Your task to perform on an android device: turn on showing notifications on the lock screen Image 0: 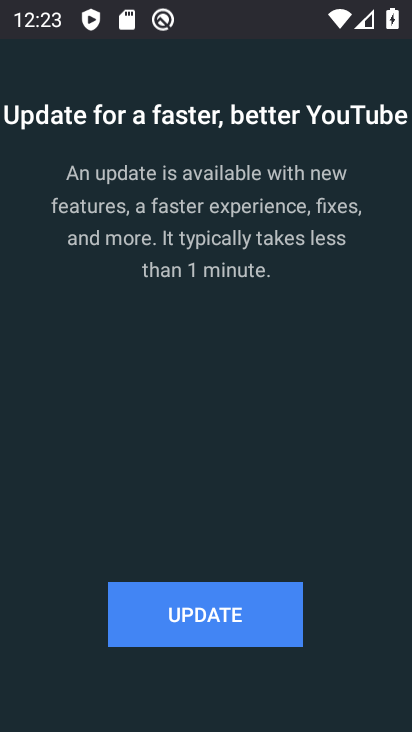
Step 0: press home button
Your task to perform on an android device: turn on showing notifications on the lock screen Image 1: 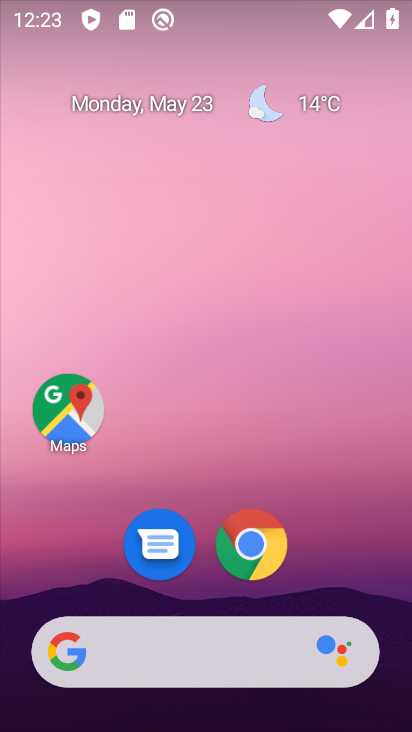
Step 1: drag from (370, 474) to (335, 126)
Your task to perform on an android device: turn on showing notifications on the lock screen Image 2: 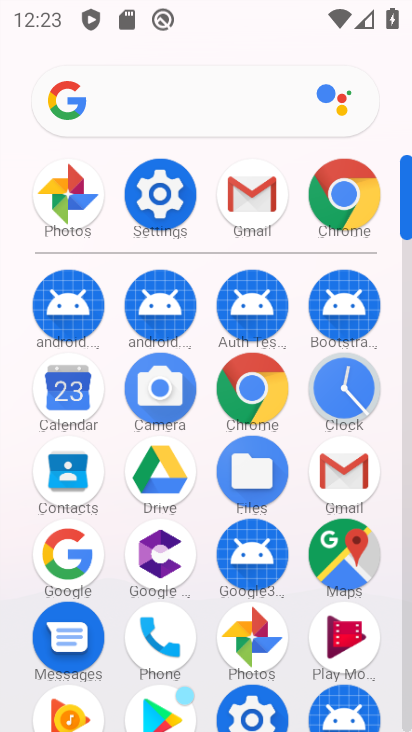
Step 2: click (146, 192)
Your task to perform on an android device: turn on showing notifications on the lock screen Image 3: 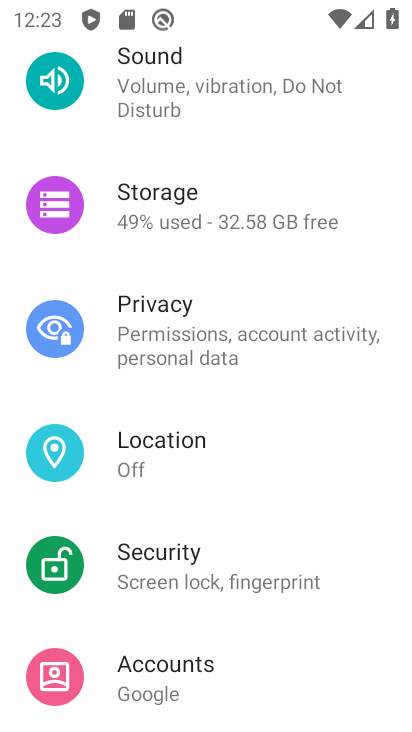
Step 3: drag from (223, 283) to (251, 687)
Your task to perform on an android device: turn on showing notifications on the lock screen Image 4: 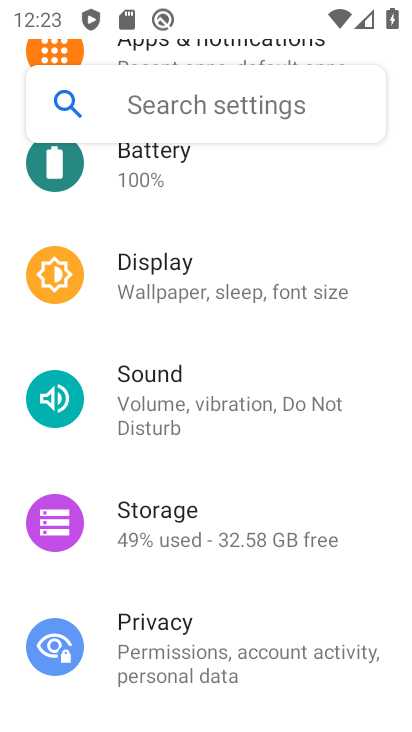
Step 4: drag from (203, 250) to (238, 716)
Your task to perform on an android device: turn on showing notifications on the lock screen Image 5: 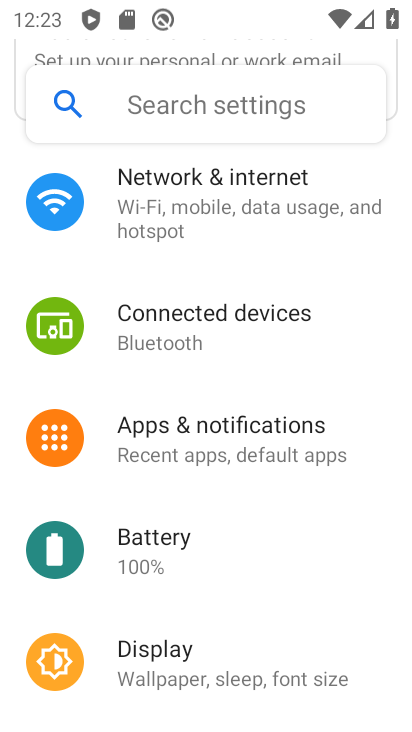
Step 5: click (209, 433)
Your task to perform on an android device: turn on showing notifications on the lock screen Image 6: 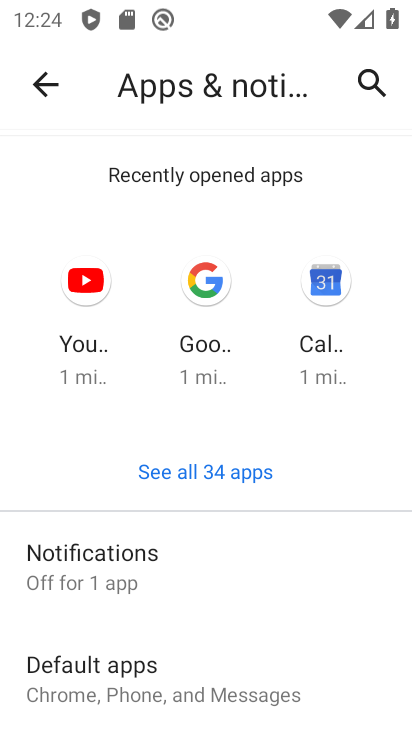
Step 6: click (143, 581)
Your task to perform on an android device: turn on showing notifications on the lock screen Image 7: 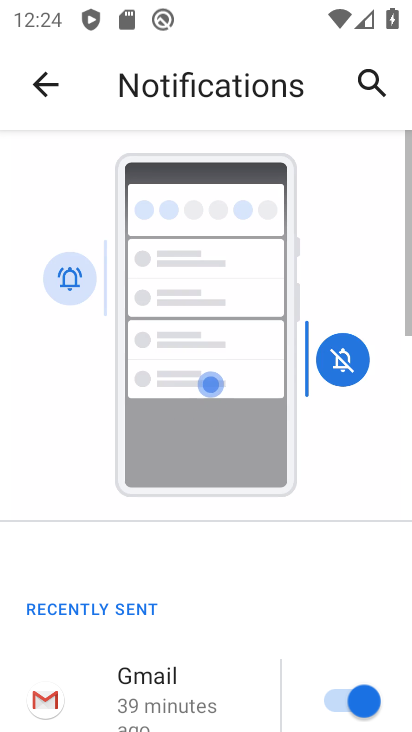
Step 7: drag from (210, 612) to (185, 172)
Your task to perform on an android device: turn on showing notifications on the lock screen Image 8: 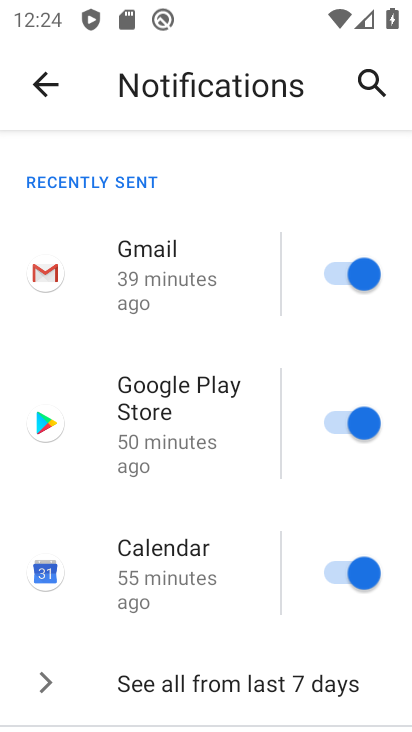
Step 8: drag from (183, 573) to (196, 166)
Your task to perform on an android device: turn on showing notifications on the lock screen Image 9: 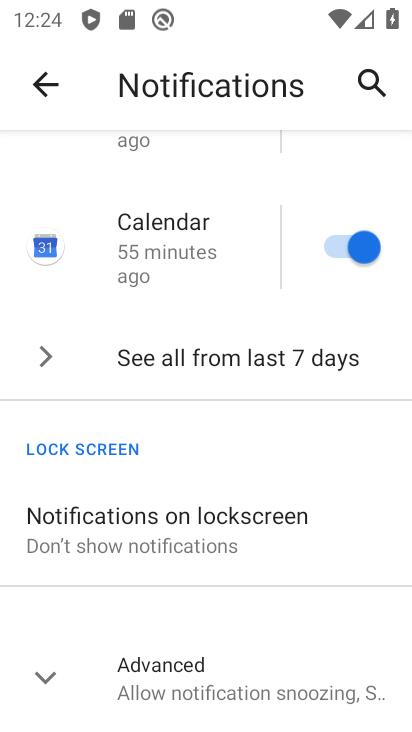
Step 9: click (212, 535)
Your task to perform on an android device: turn on showing notifications on the lock screen Image 10: 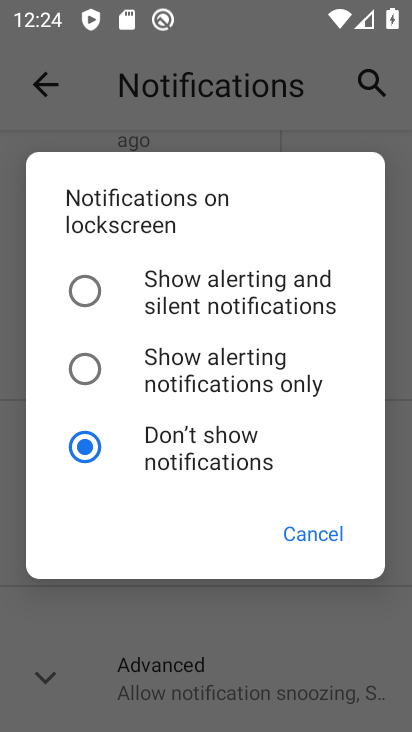
Step 10: click (235, 395)
Your task to perform on an android device: turn on showing notifications on the lock screen Image 11: 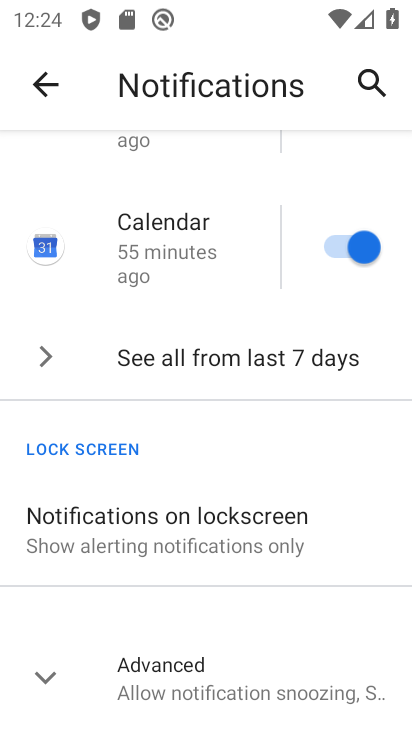
Step 11: task complete